Your task to perform on an android device: see creations saved in the google photos Image 0: 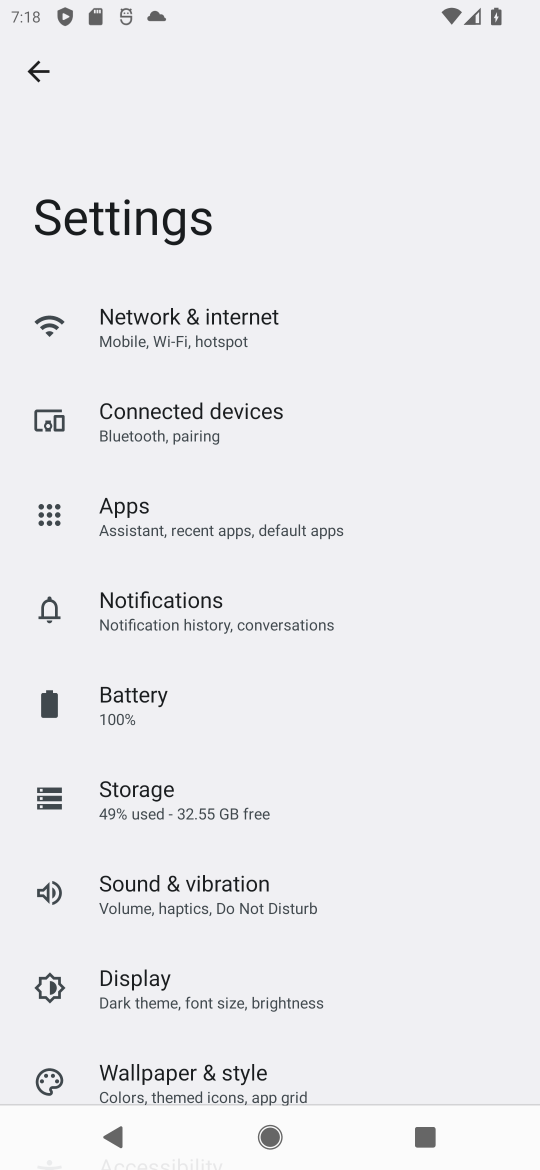
Step 0: press home button
Your task to perform on an android device: see creations saved in the google photos Image 1: 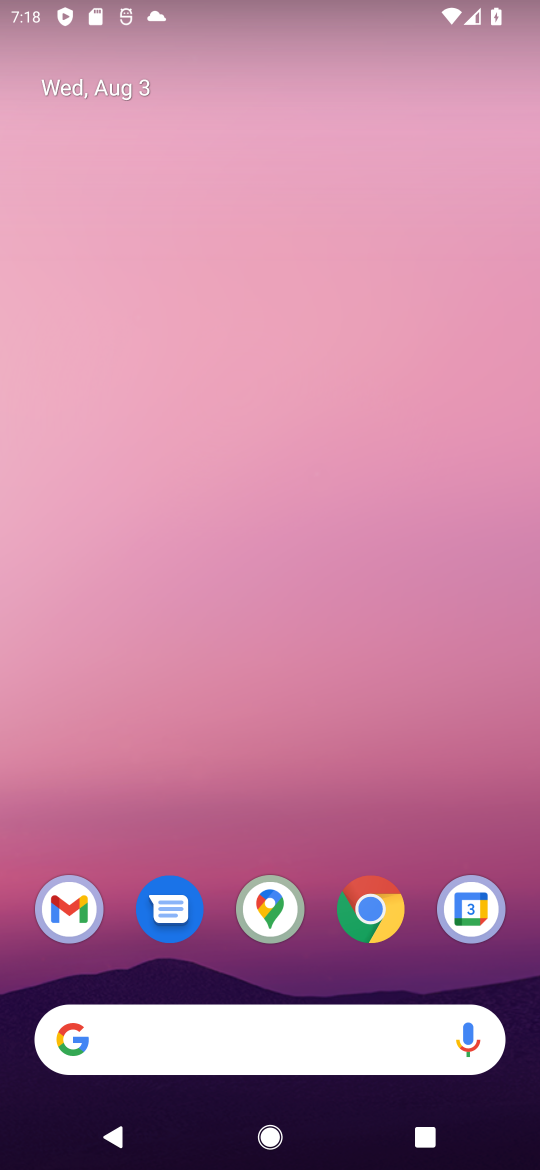
Step 1: drag from (379, 675) to (376, 141)
Your task to perform on an android device: see creations saved in the google photos Image 2: 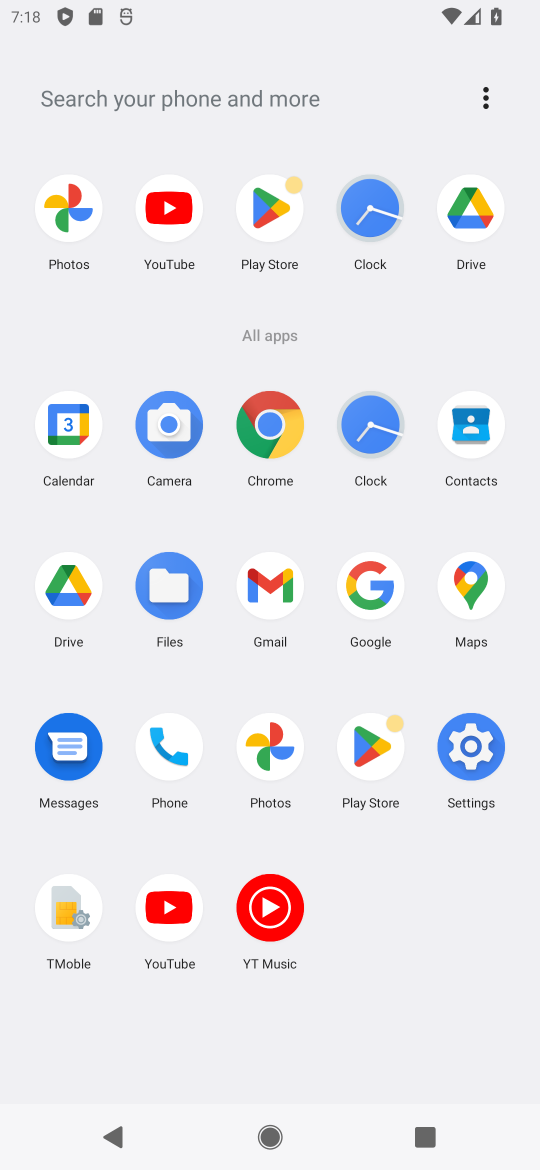
Step 2: click (274, 748)
Your task to perform on an android device: see creations saved in the google photos Image 3: 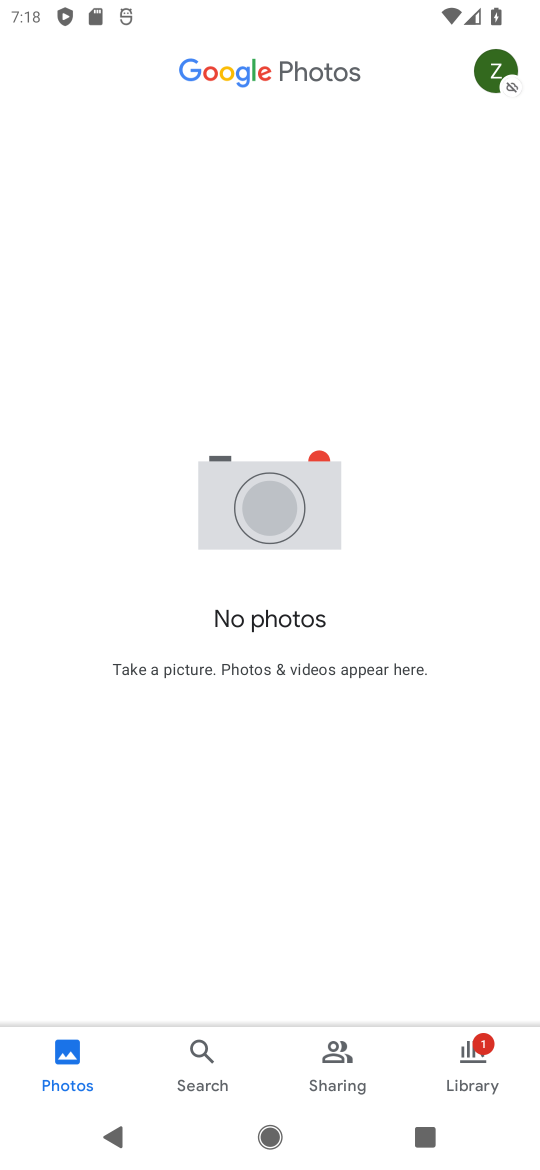
Step 3: click (193, 1064)
Your task to perform on an android device: see creations saved in the google photos Image 4: 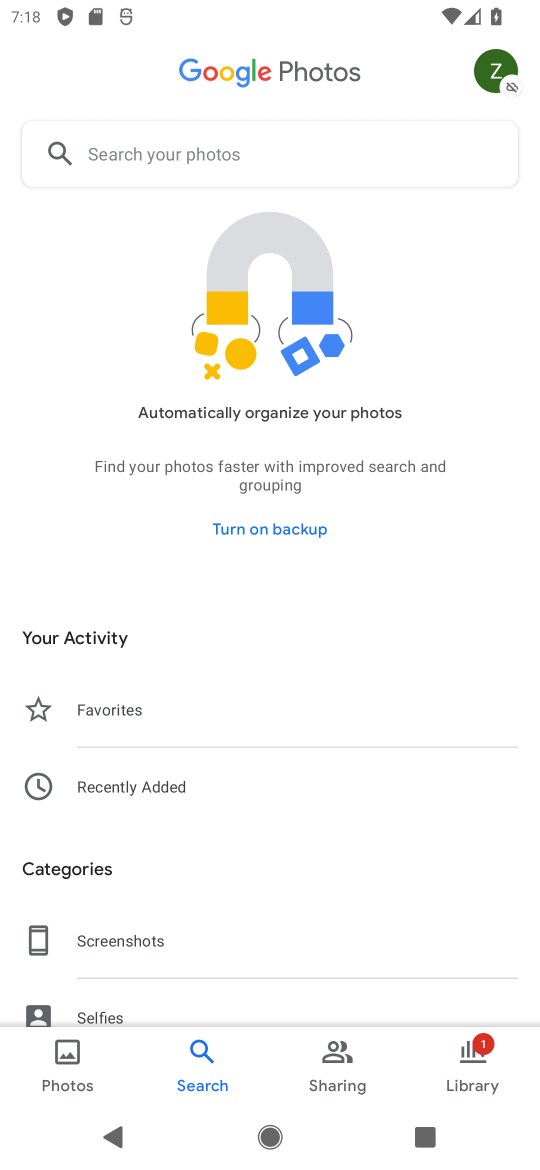
Step 4: drag from (365, 848) to (380, 594)
Your task to perform on an android device: see creations saved in the google photos Image 5: 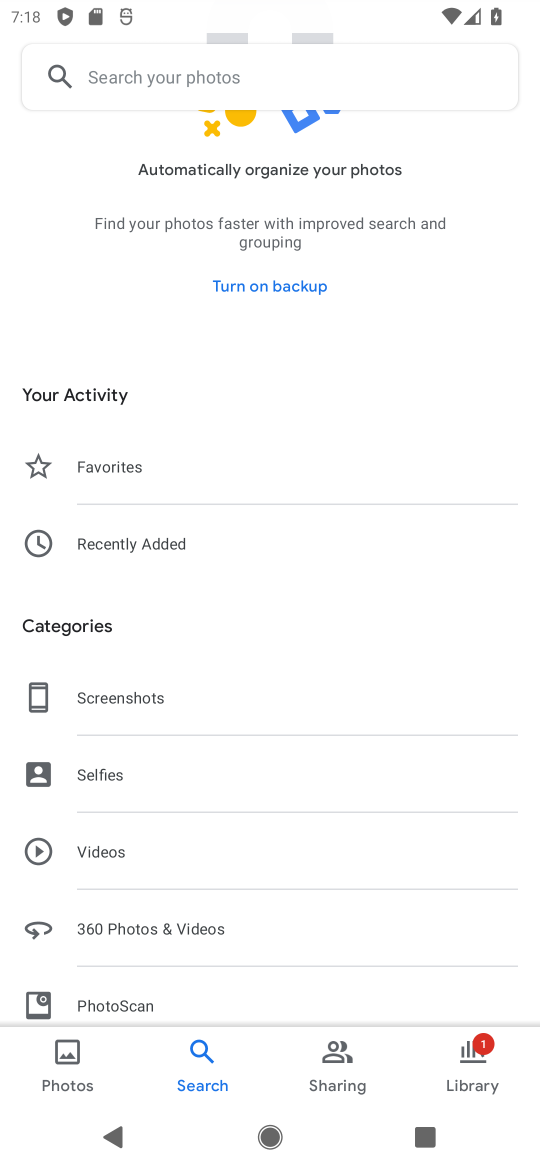
Step 5: drag from (338, 828) to (355, 559)
Your task to perform on an android device: see creations saved in the google photos Image 6: 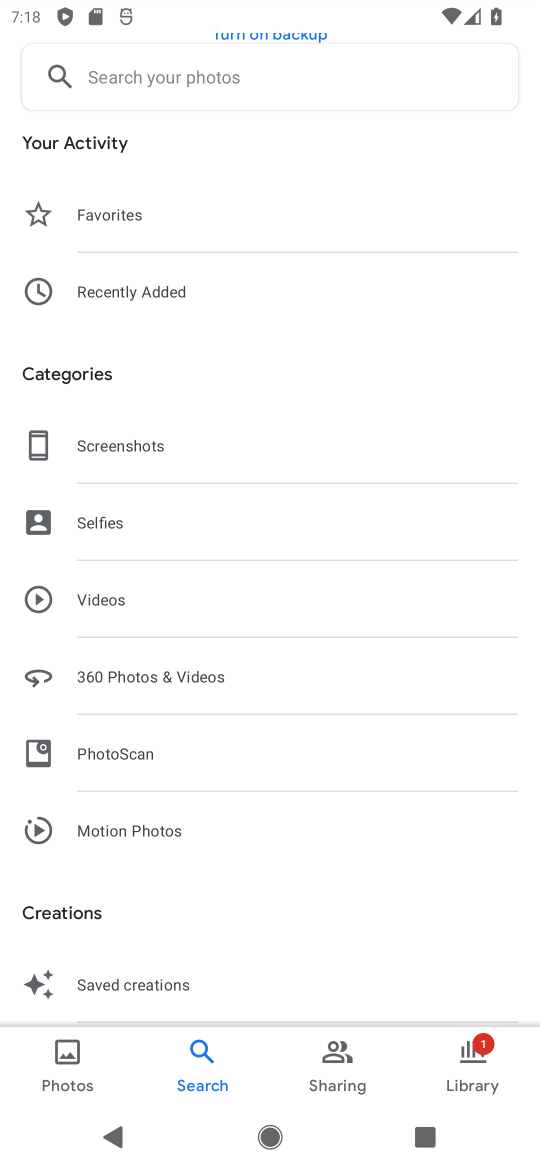
Step 6: drag from (245, 922) to (252, 598)
Your task to perform on an android device: see creations saved in the google photos Image 7: 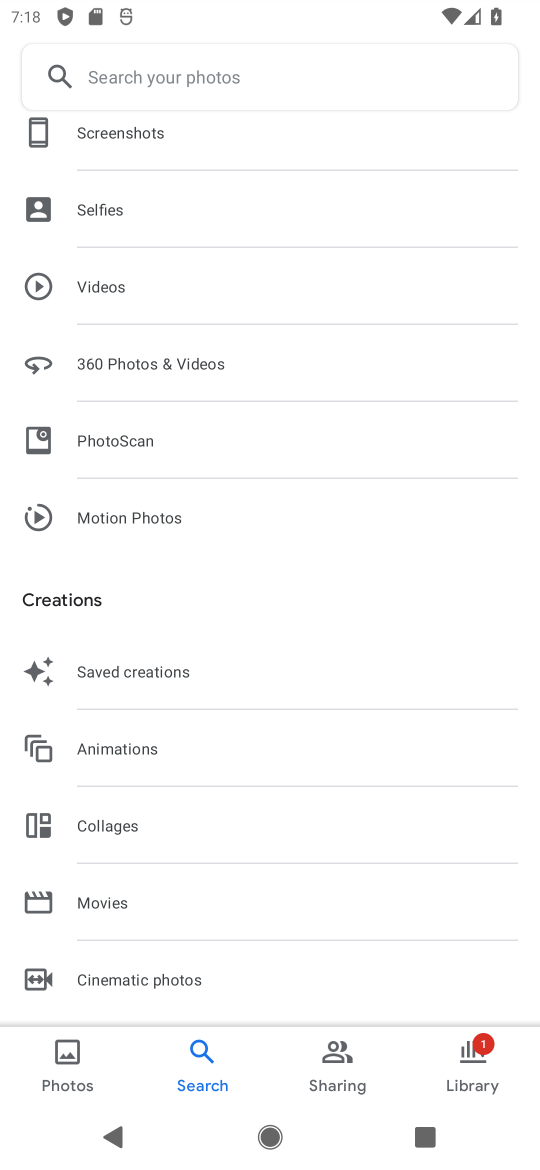
Step 7: click (223, 687)
Your task to perform on an android device: see creations saved in the google photos Image 8: 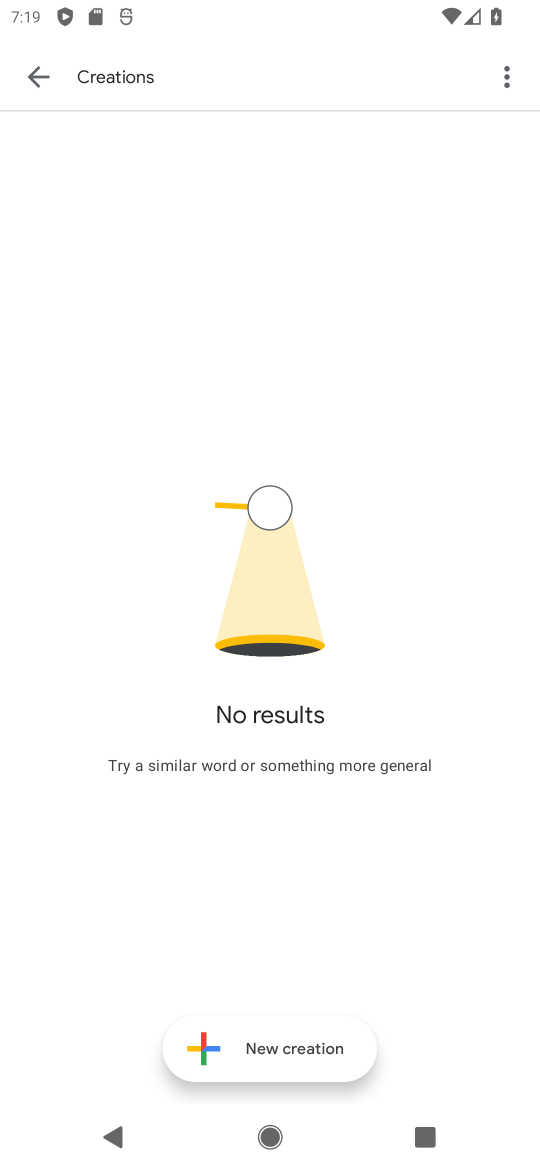
Step 8: task complete